Your task to perform on an android device: Turn on the flashlight Image 0: 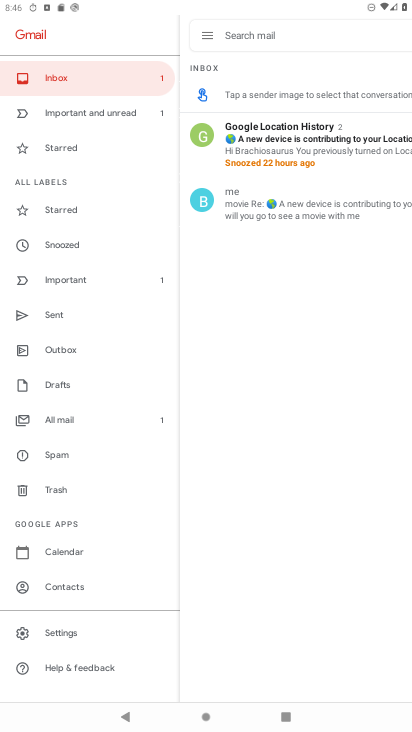
Step 0: press home button
Your task to perform on an android device: Turn on the flashlight Image 1: 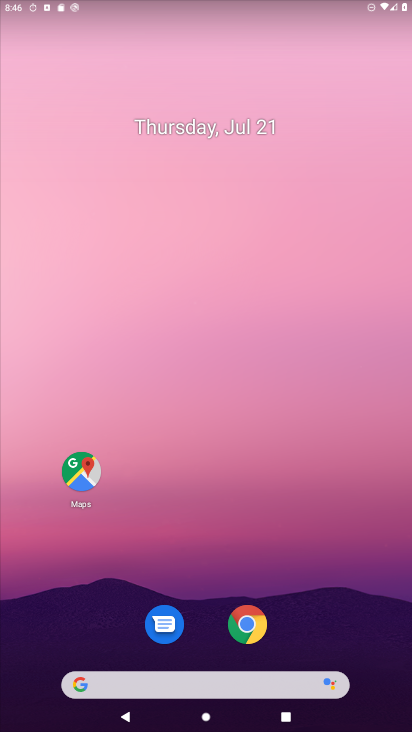
Step 1: drag from (87, 436) to (272, 42)
Your task to perform on an android device: Turn on the flashlight Image 2: 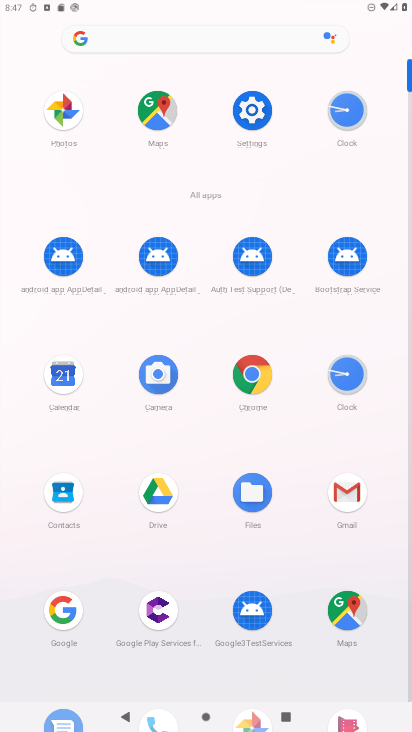
Step 2: click (256, 100)
Your task to perform on an android device: Turn on the flashlight Image 3: 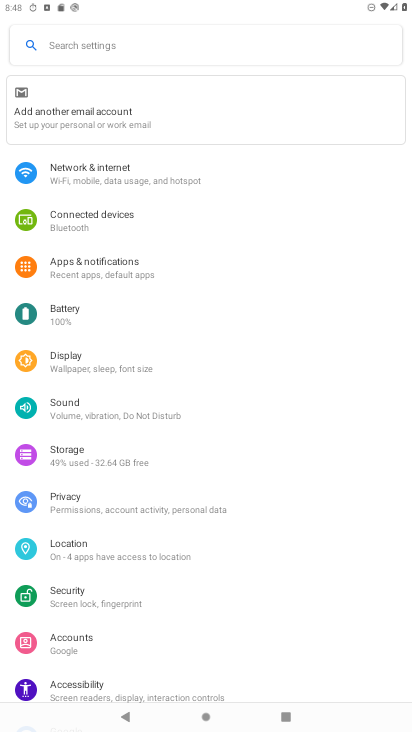
Step 3: task complete